Your task to perform on an android device: turn off location history Image 0: 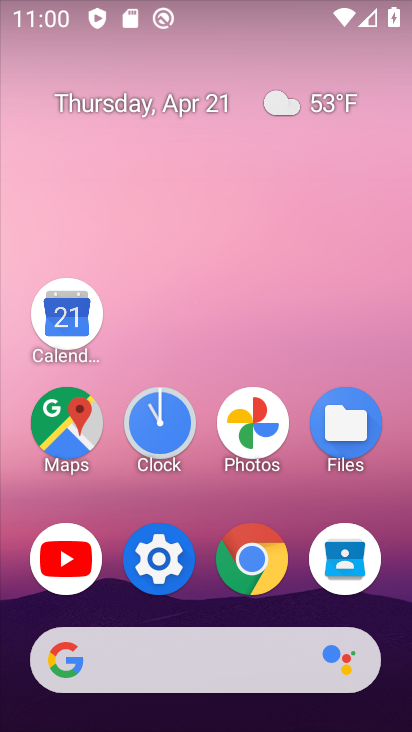
Step 0: click (54, 431)
Your task to perform on an android device: turn off location history Image 1: 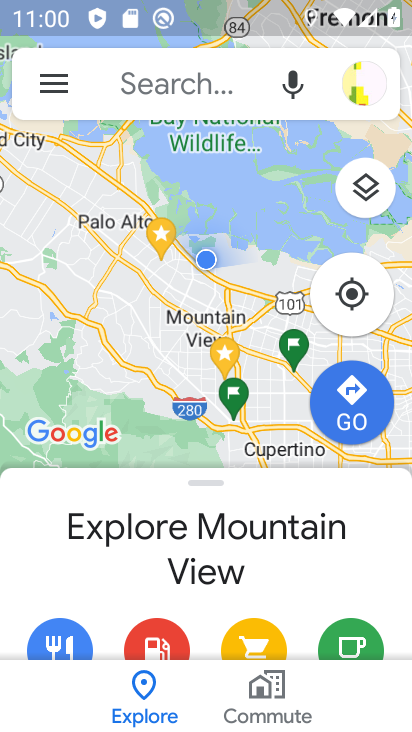
Step 1: click (46, 77)
Your task to perform on an android device: turn off location history Image 2: 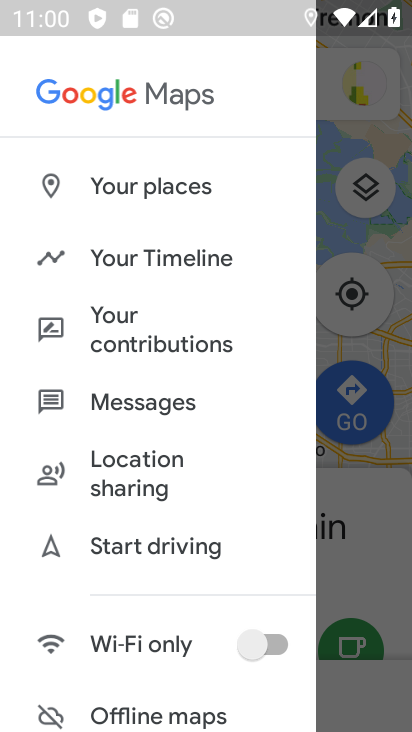
Step 2: click (155, 255)
Your task to perform on an android device: turn off location history Image 3: 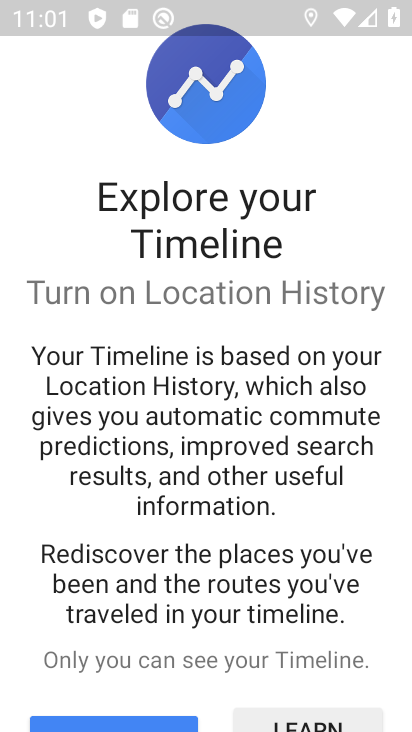
Step 3: click (312, 723)
Your task to perform on an android device: turn off location history Image 4: 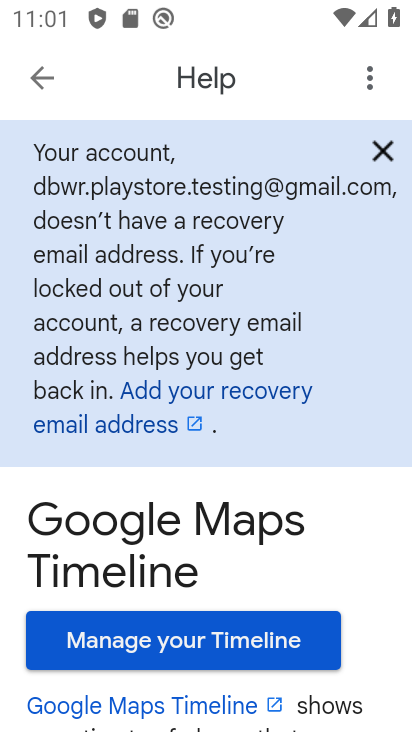
Step 4: click (379, 147)
Your task to perform on an android device: turn off location history Image 5: 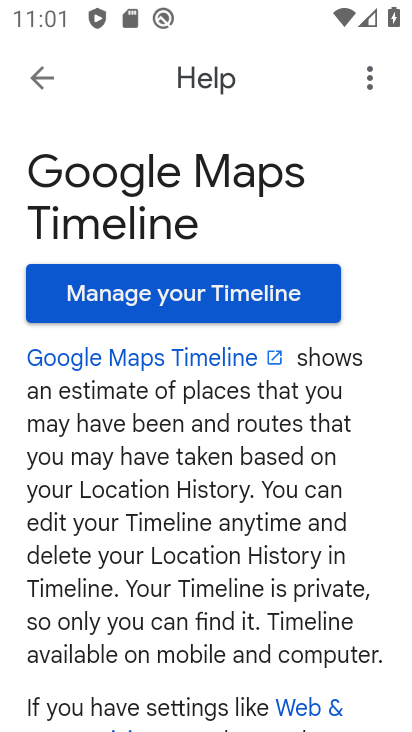
Step 5: click (38, 74)
Your task to perform on an android device: turn off location history Image 6: 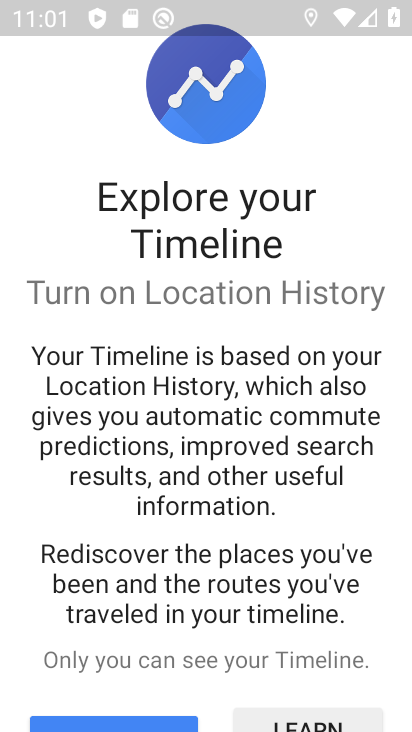
Step 6: drag from (195, 674) to (228, 217)
Your task to perform on an android device: turn off location history Image 7: 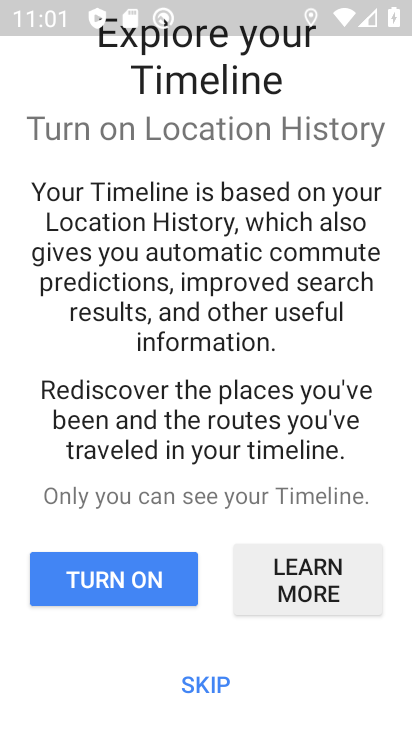
Step 7: click (203, 678)
Your task to perform on an android device: turn off location history Image 8: 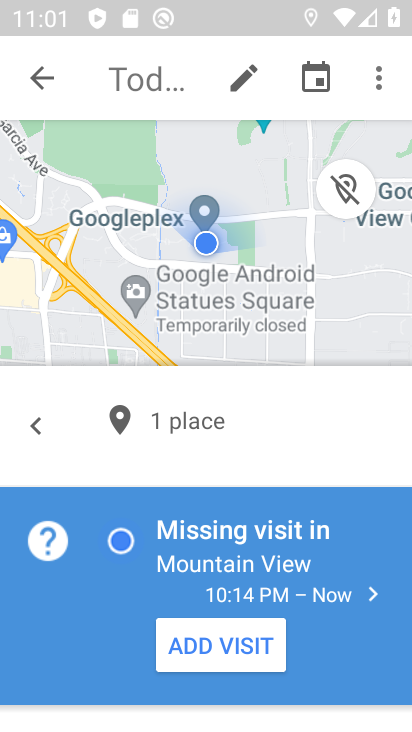
Step 8: click (375, 70)
Your task to perform on an android device: turn off location history Image 9: 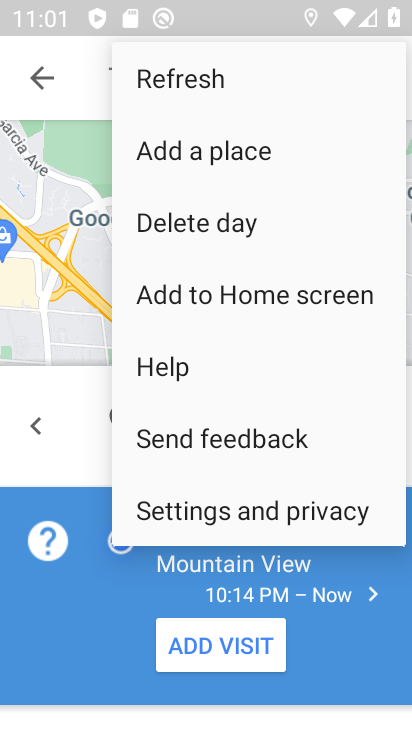
Step 9: click (262, 503)
Your task to perform on an android device: turn off location history Image 10: 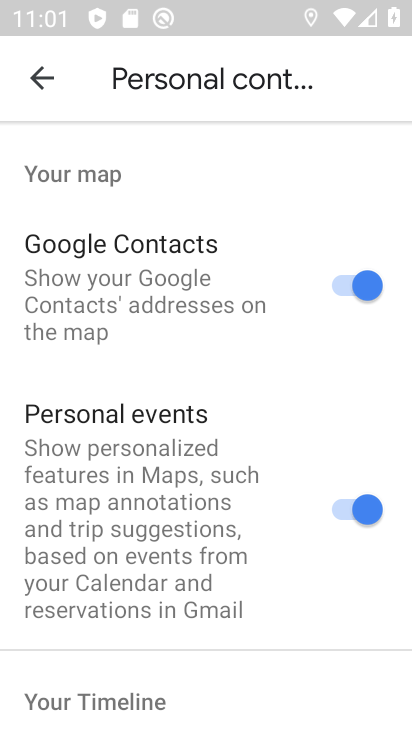
Step 10: drag from (276, 581) to (218, 15)
Your task to perform on an android device: turn off location history Image 11: 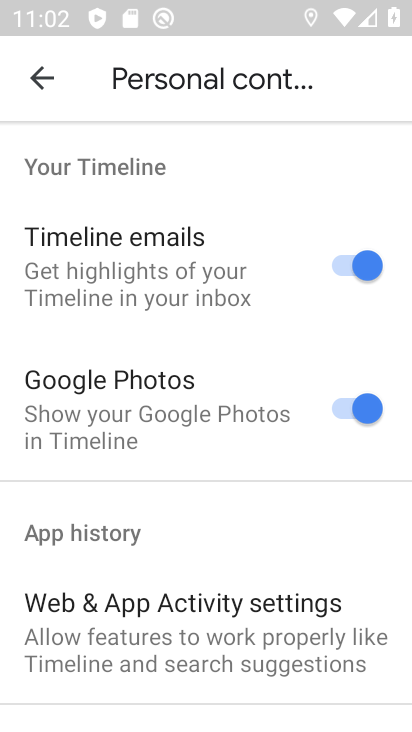
Step 11: drag from (236, 522) to (187, 3)
Your task to perform on an android device: turn off location history Image 12: 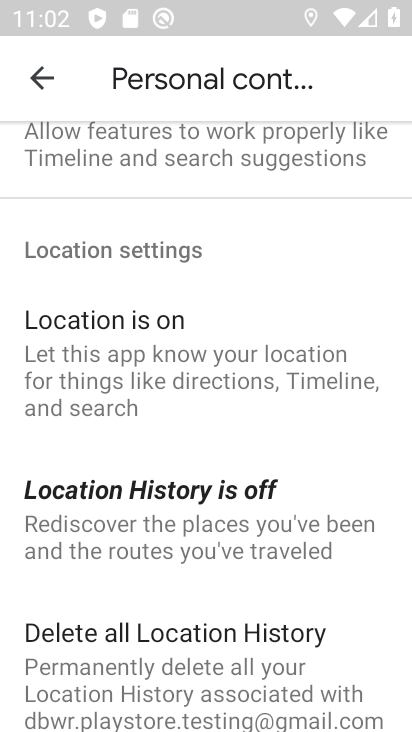
Step 12: click (169, 485)
Your task to perform on an android device: turn off location history Image 13: 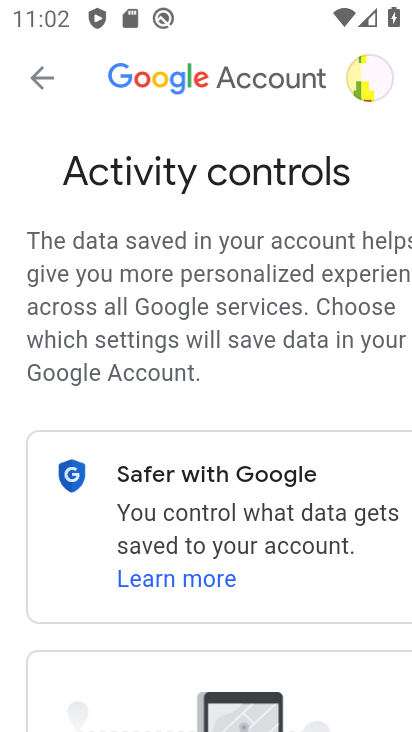
Step 13: task complete